Your task to perform on an android device: add a contact in the contacts app Image 0: 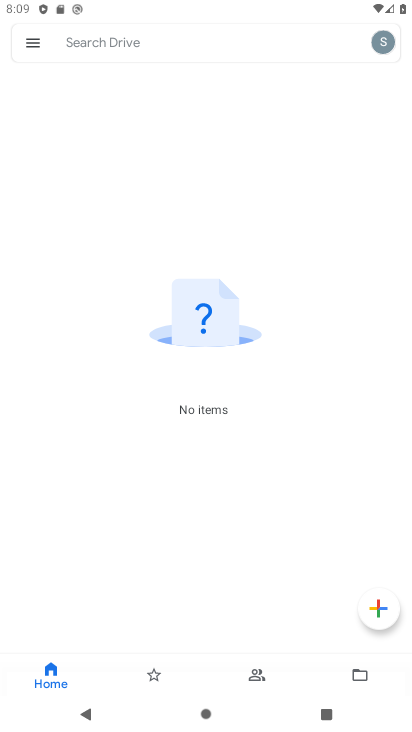
Step 0: press home button
Your task to perform on an android device: add a contact in the contacts app Image 1: 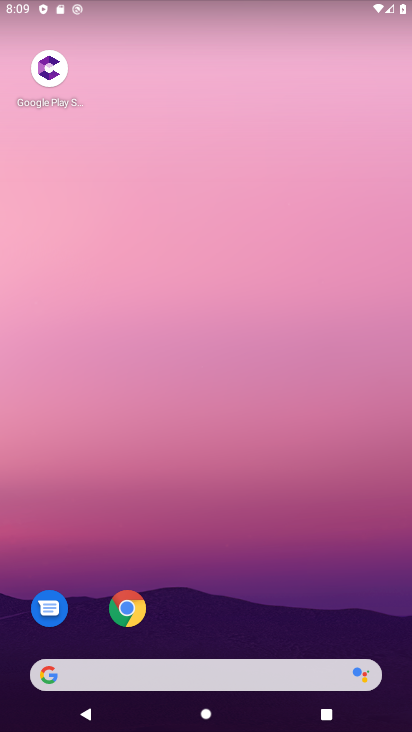
Step 1: drag from (174, 537) to (188, 260)
Your task to perform on an android device: add a contact in the contacts app Image 2: 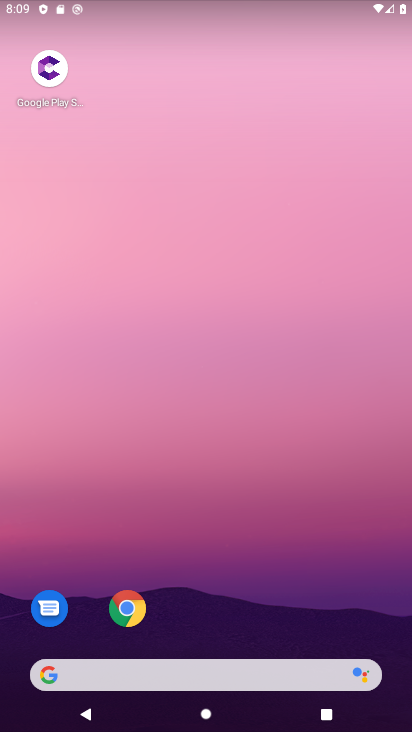
Step 2: drag from (197, 644) to (201, 276)
Your task to perform on an android device: add a contact in the contacts app Image 3: 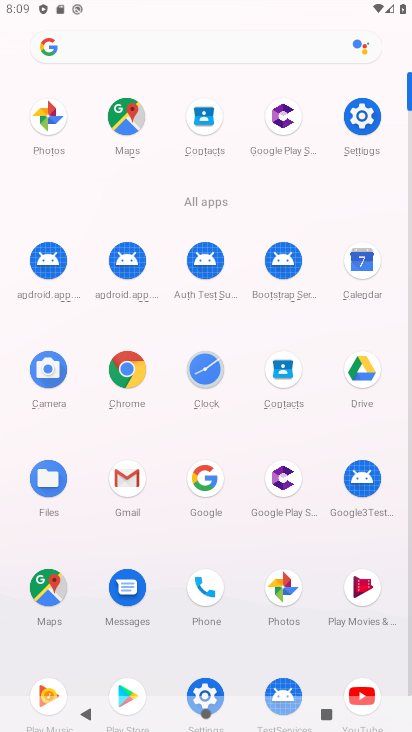
Step 3: click (203, 120)
Your task to perform on an android device: add a contact in the contacts app Image 4: 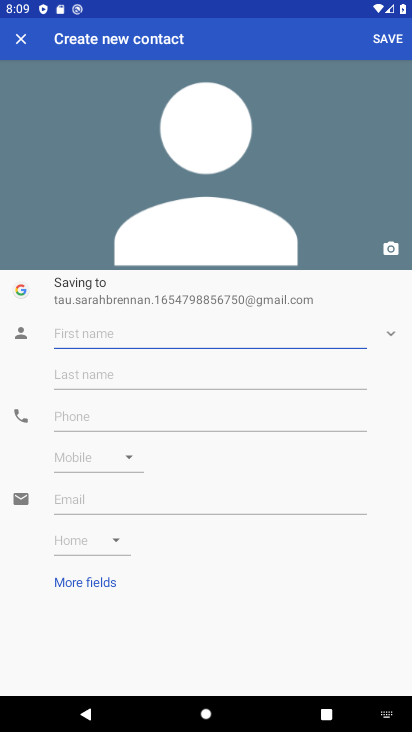
Step 4: click (137, 333)
Your task to perform on an android device: add a contact in the contacts app Image 5: 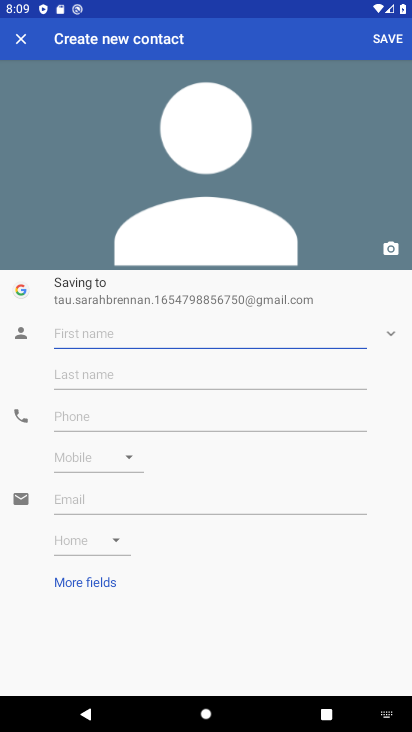
Step 5: type "heena"
Your task to perform on an android device: add a contact in the contacts app Image 6: 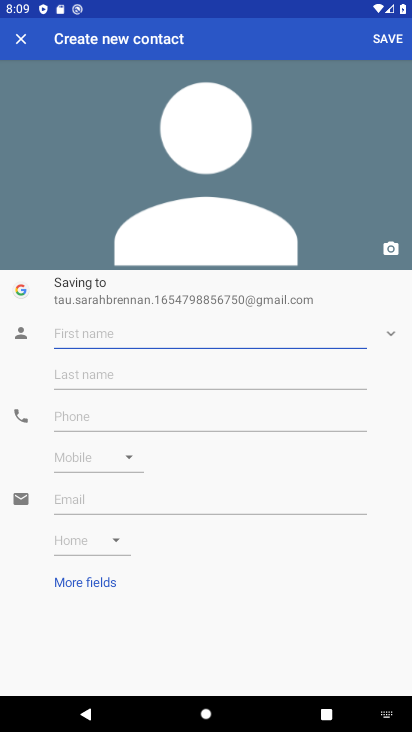
Step 6: click (88, 373)
Your task to perform on an android device: add a contact in the contacts app Image 7: 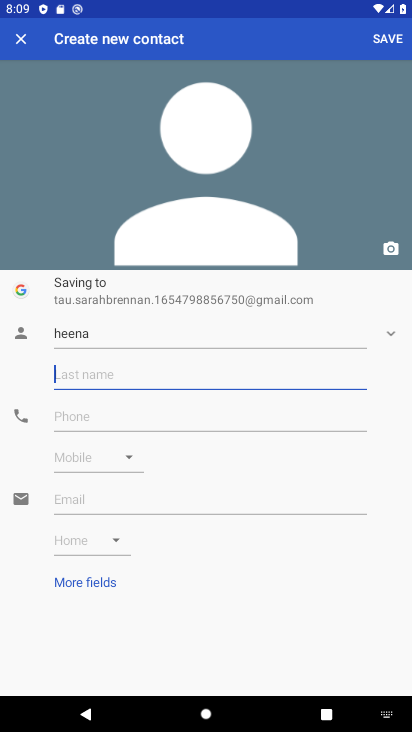
Step 7: type "khan"
Your task to perform on an android device: add a contact in the contacts app Image 8: 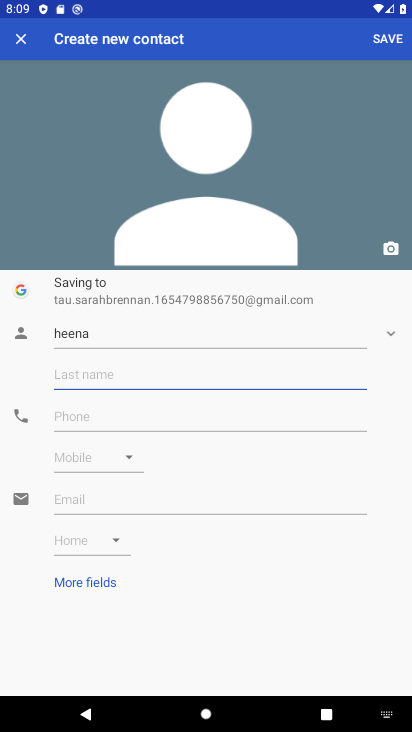
Step 8: click (86, 414)
Your task to perform on an android device: add a contact in the contacts app Image 9: 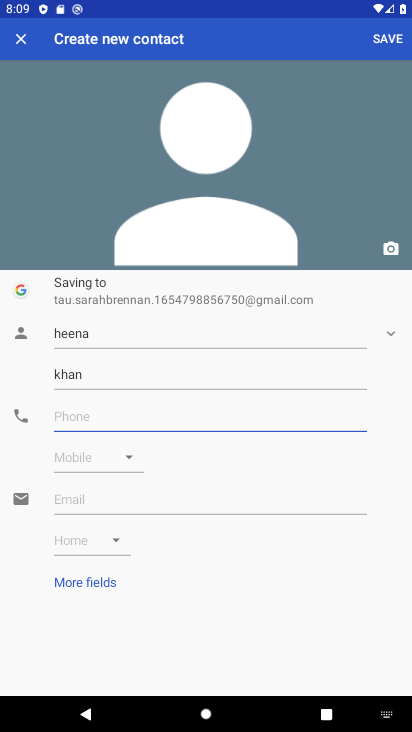
Step 9: type "7876757974"
Your task to perform on an android device: add a contact in the contacts app Image 10: 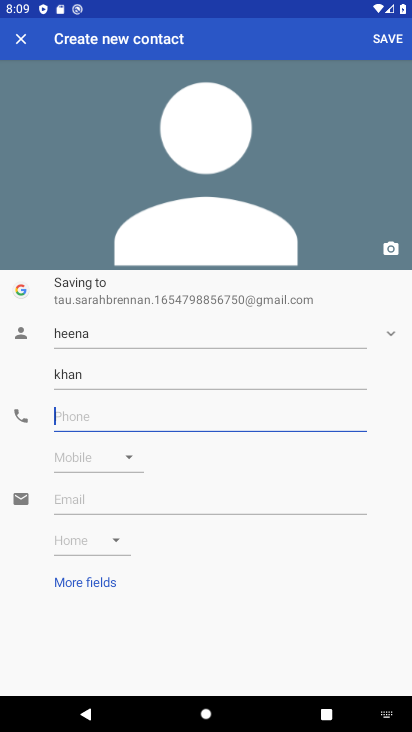
Step 10: click (127, 461)
Your task to perform on an android device: add a contact in the contacts app Image 11: 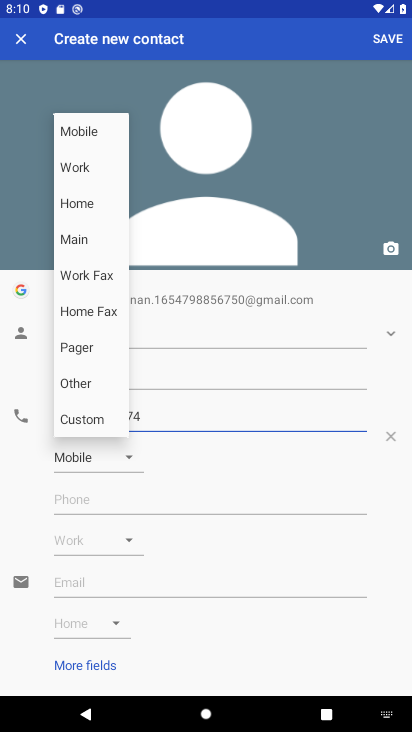
Step 11: click (92, 128)
Your task to perform on an android device: add a contact in the contacts app Image 12: 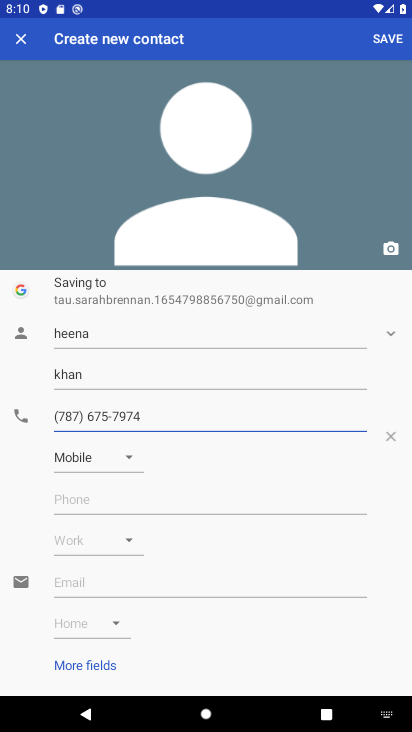
Step 12: click (385, 40)
Your task to perform on an android device: add a contact in the contacts app Image 13: 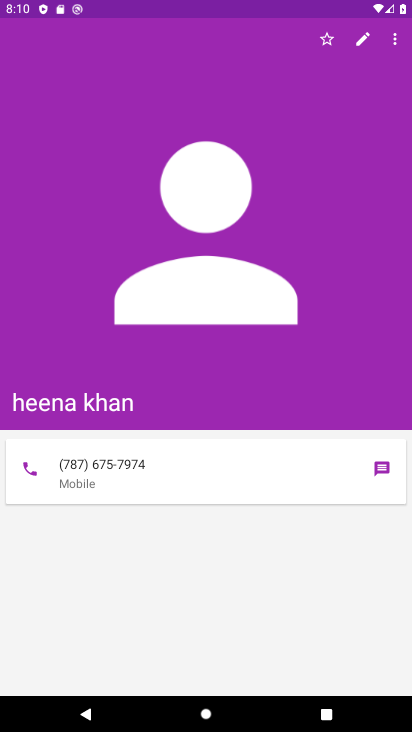
Step 13: task complete